Your task to perform on an android device: change the clock display to analog Image 0: 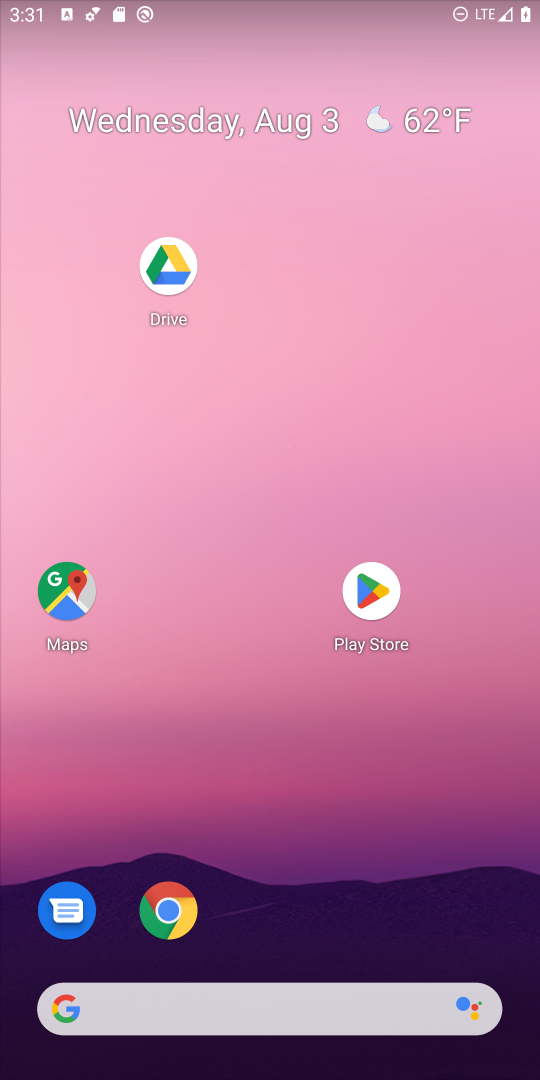
Step 0: drag from (340, 946) to (455, 133)
Your task to perform on an android device: change the clock display to analog Image 1: 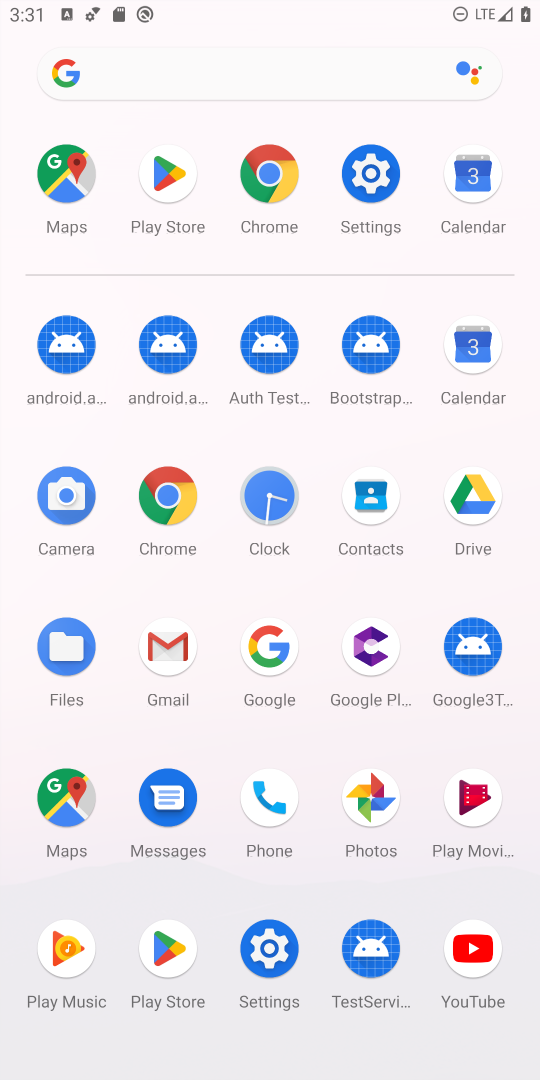
Step 1: click (261, 503)
Your task to perform on an android device: change the clock display to analog Image 2: 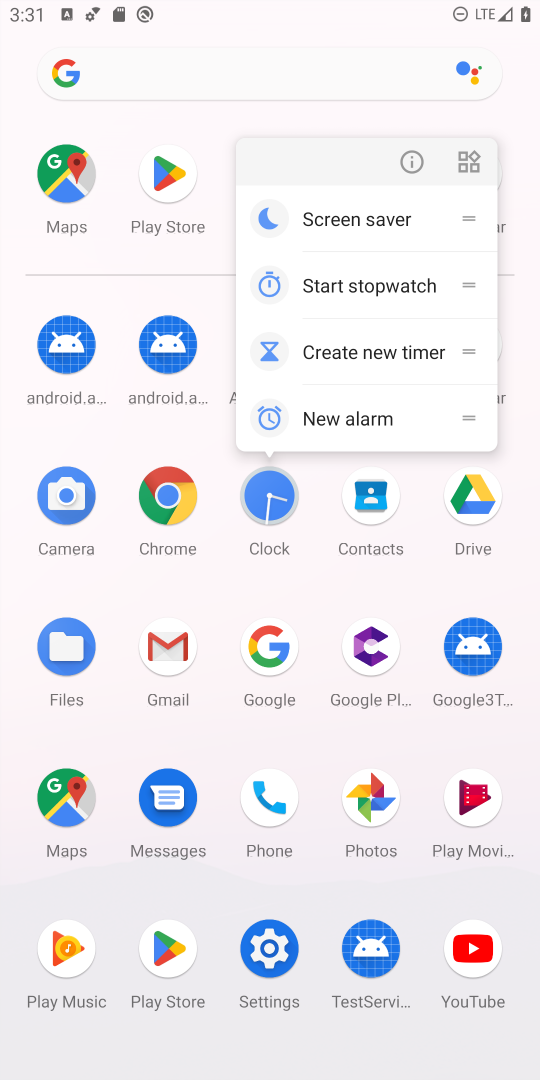
Step 2: click (279, 486)
Your task to perform on an android device: change the clock display to analog Image 3: 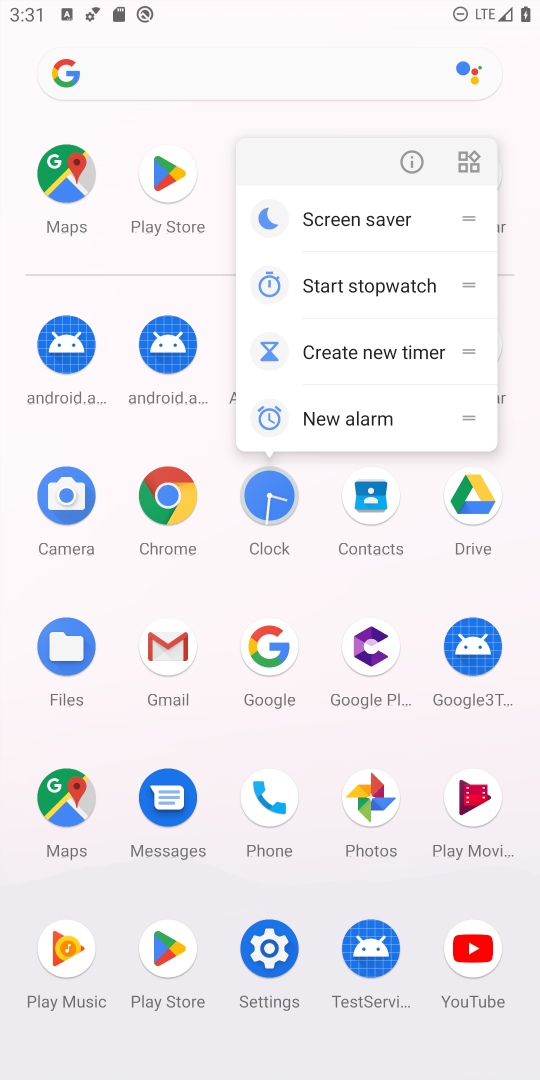
Step 3: click (279, 486)
Your task to perform on an android device: change the clock display to analog Image 4: 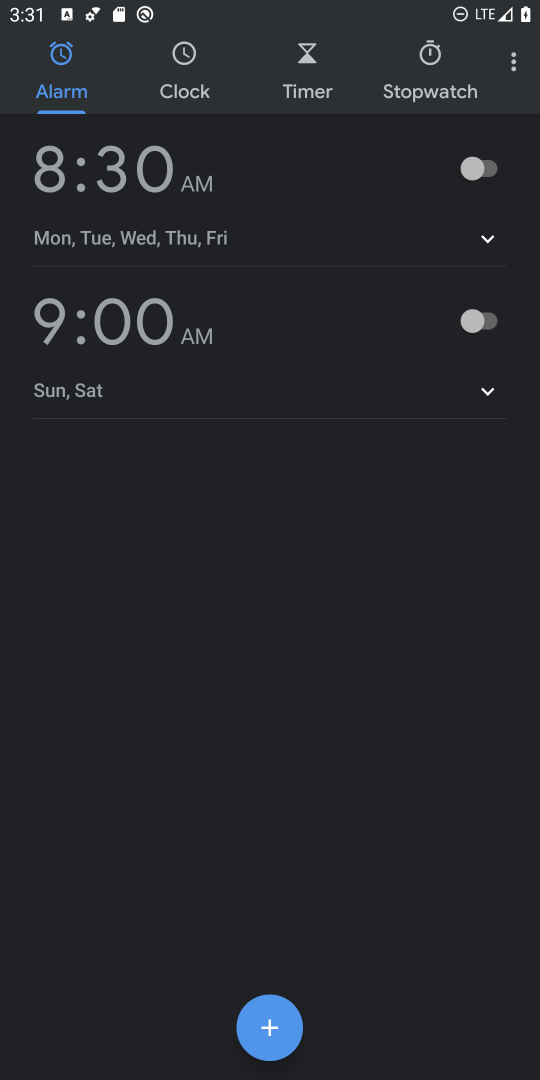
Step 4: click (514, 70)
Your task to perform on an android device: change the clock display to analog Image 5: 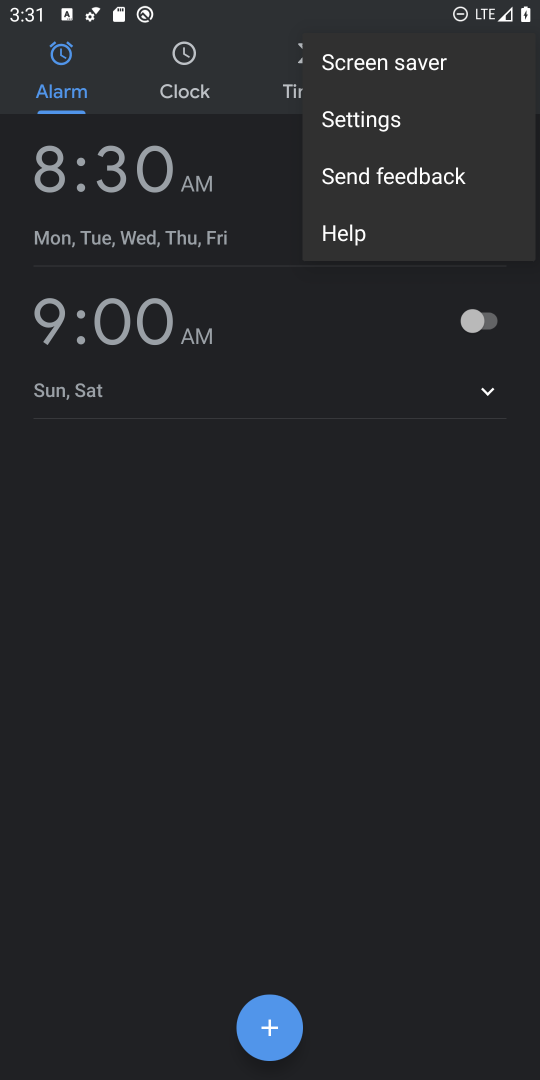
Step 5: click (379, 111)
Your task to perform on an android device: change the clock display to analog Image 6: 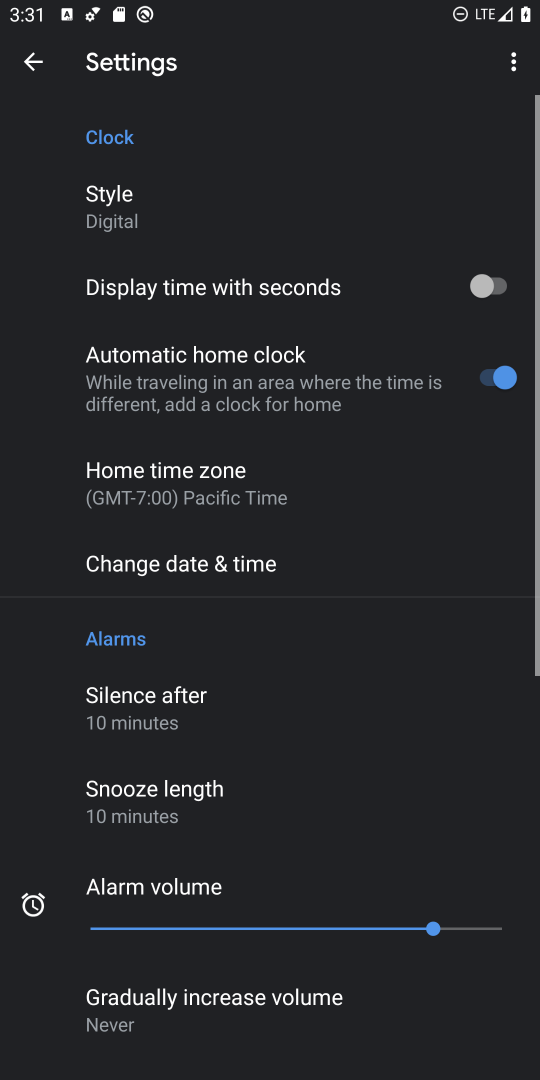
Step 6: click (160, 205)
Your task to perform on an android device: change the clock display to analog Image 7: 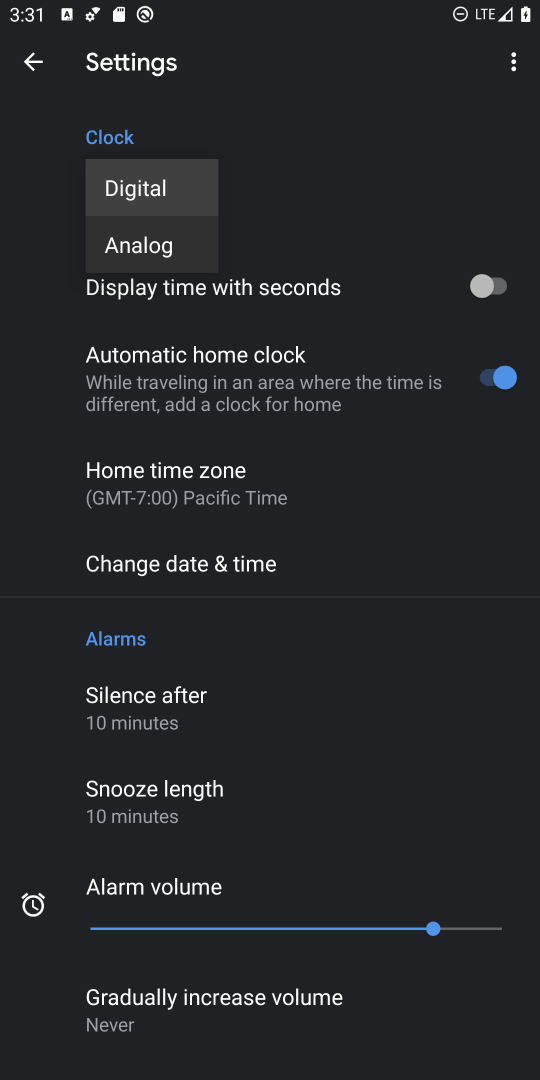
Step 7: click (133, 242)
Your task to perform on an android device: change the clock display to analog Image 8: 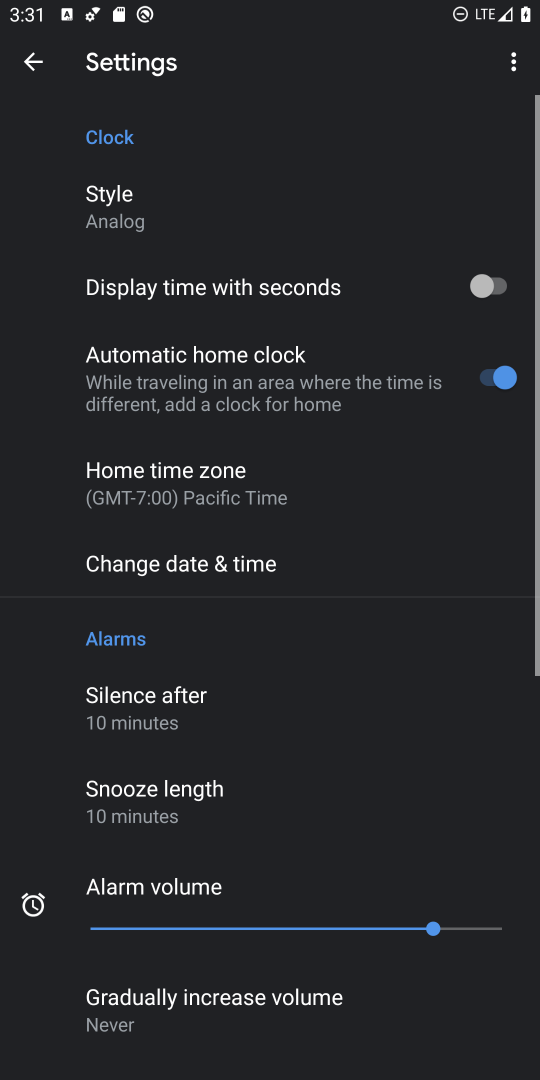
Step 8: task complete